Your task to perform on an android device: Open network settings Image 0: 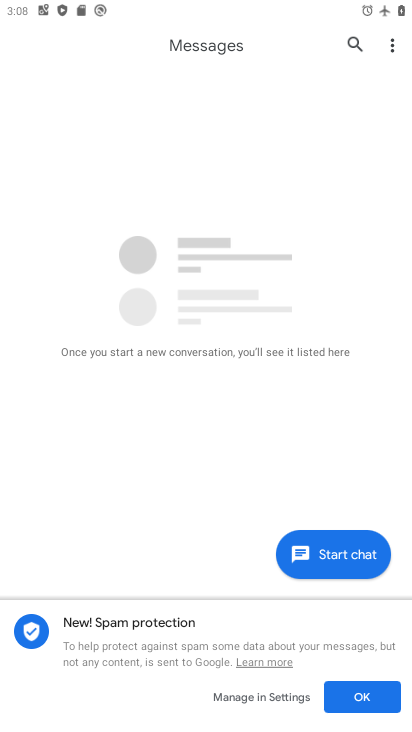
Step 0: task complete